Your task to perform on an android device: Open Google Chrome and open the bookmarks view Image 0: 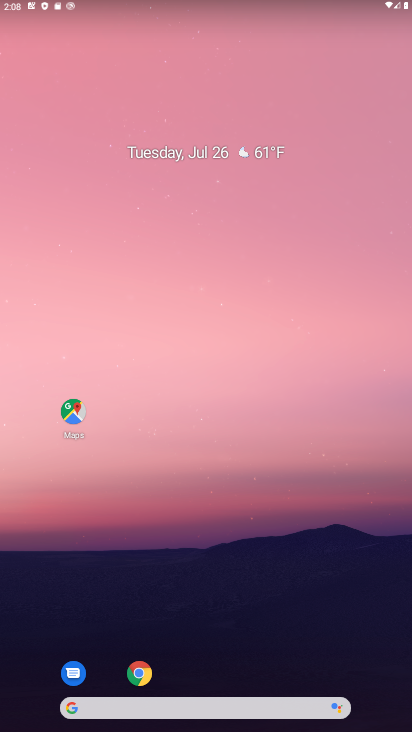
Step 0: drag from (232, 606) to (281, 68)
Your task to perform on an android device: Open Google Chrome and open the bookmarks view Image 1: 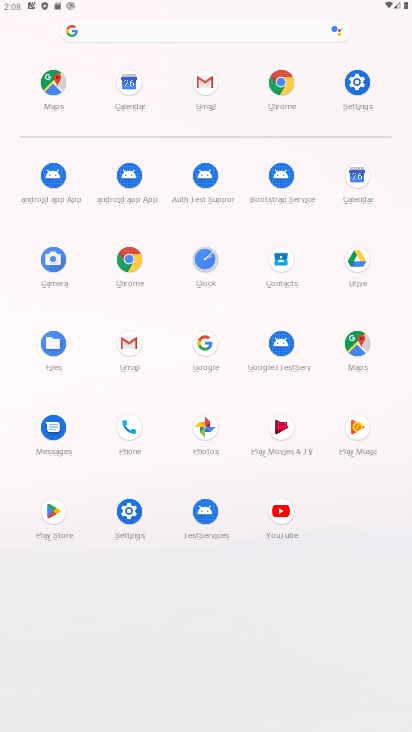
Step 1: click (122, 256)
Your task to perform on an android device: Open Google Chrome and open the bookmarks view Image 2: 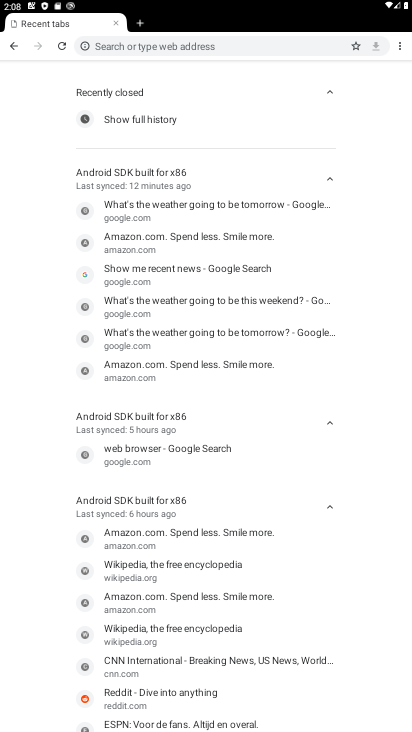
Step 2: drag from (402, 43) to (326, 211)
Your task to perform on an android device: Open Google Chrome and open the bookmarks view Image 3: 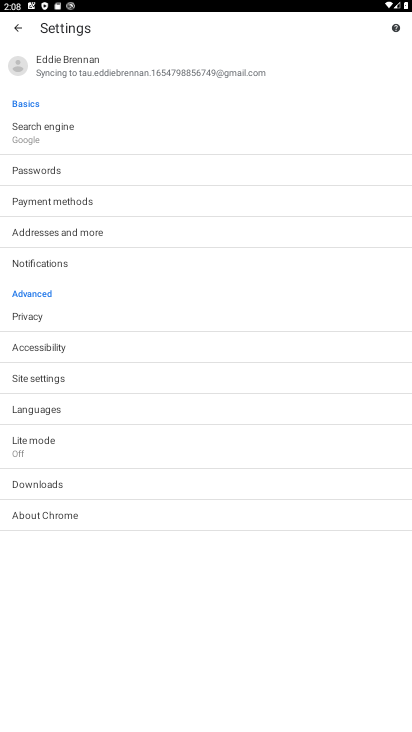
Step 3: click (23, 27)
Your task to perform on an android device: Open Google Chrome and open the bookmarks view Image 4: 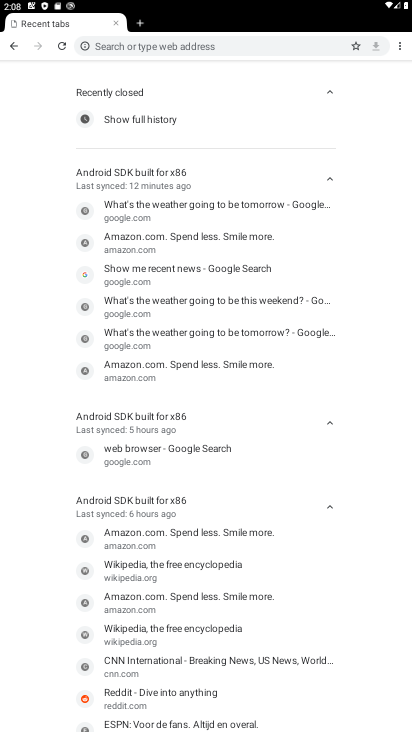
Step 4: task complete